Your task to perform on an android device: Check the weather Image 0: 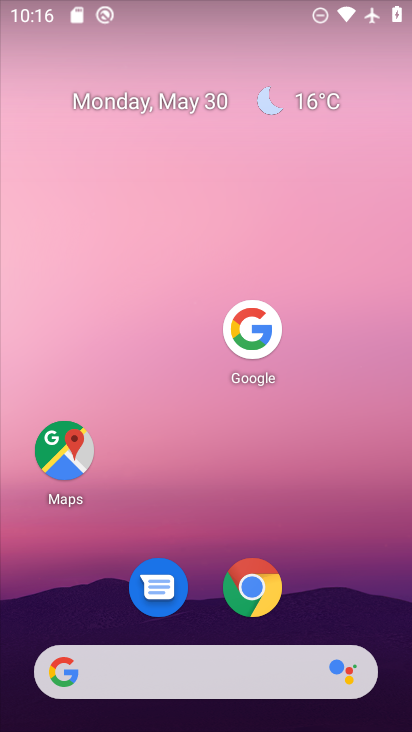
Step 0: click (311, 97)
Your task to perform on an android device: Check the weather Image 1: 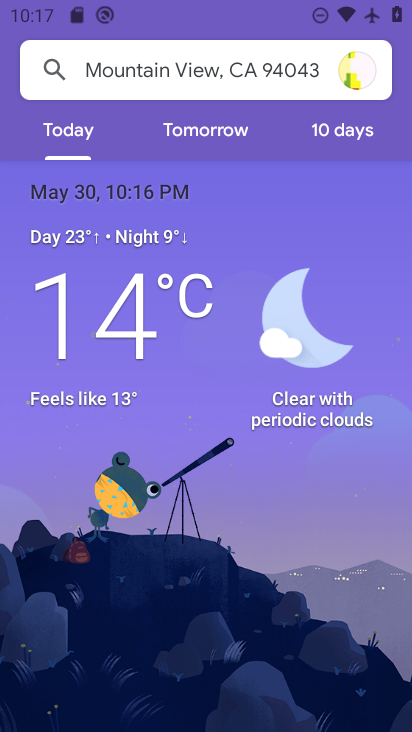
Step 1: task complete